Your task to perform on an android device: find which apps use the phone's location Image 0: 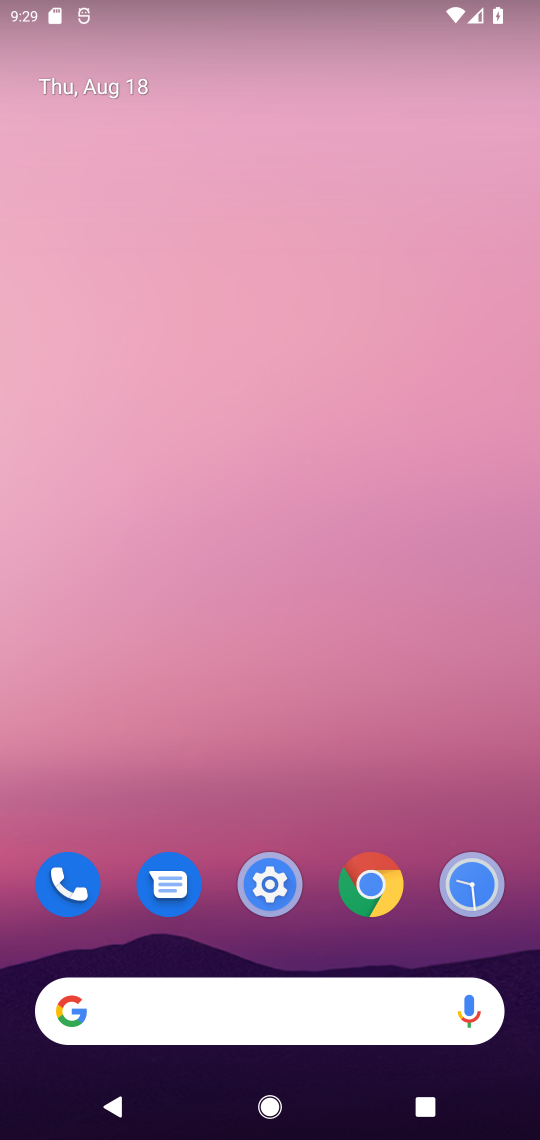
Step 0: click (263, 901)
Your task to perform on an android device: find which apps use the phone's location Image 1: 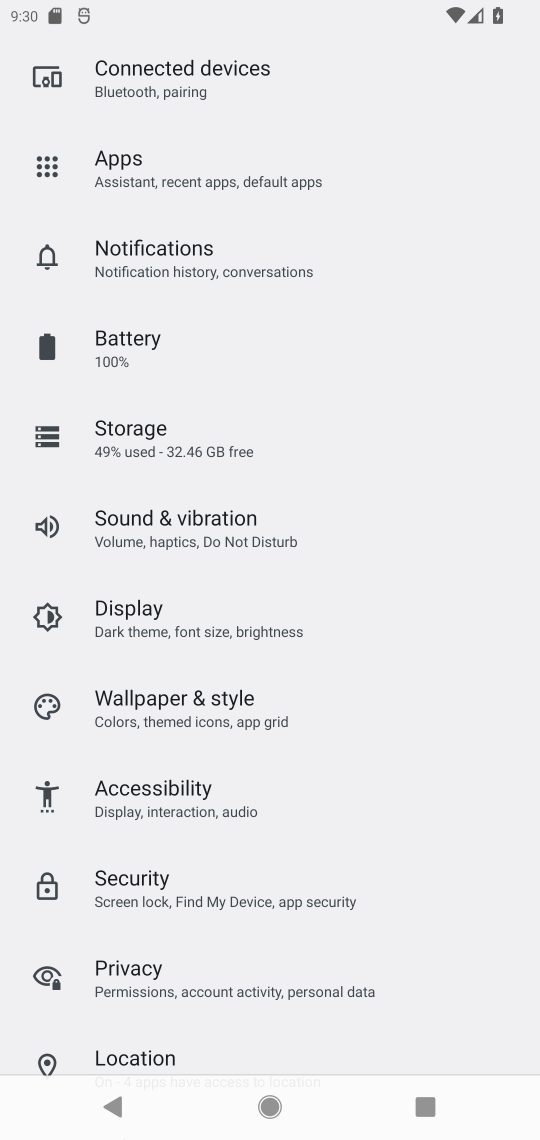
Step 1: click (128, 1066)
Your task to perform on an android device: find which apps use the phone's location Image 2: 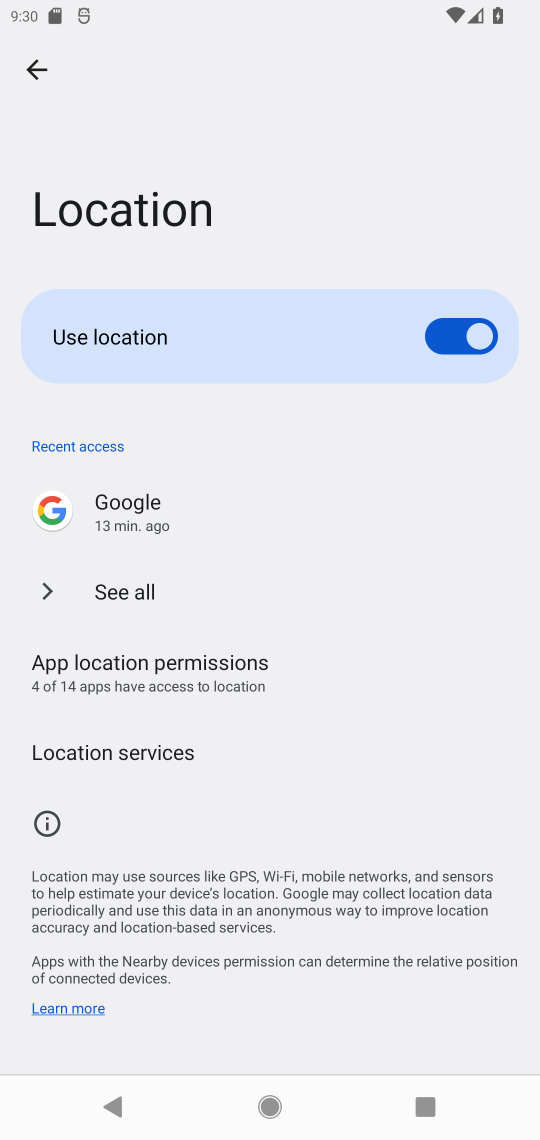
Step 2: click (93, 591)
Your task to perform on an android device: find which apps use the phone's location Image 3: 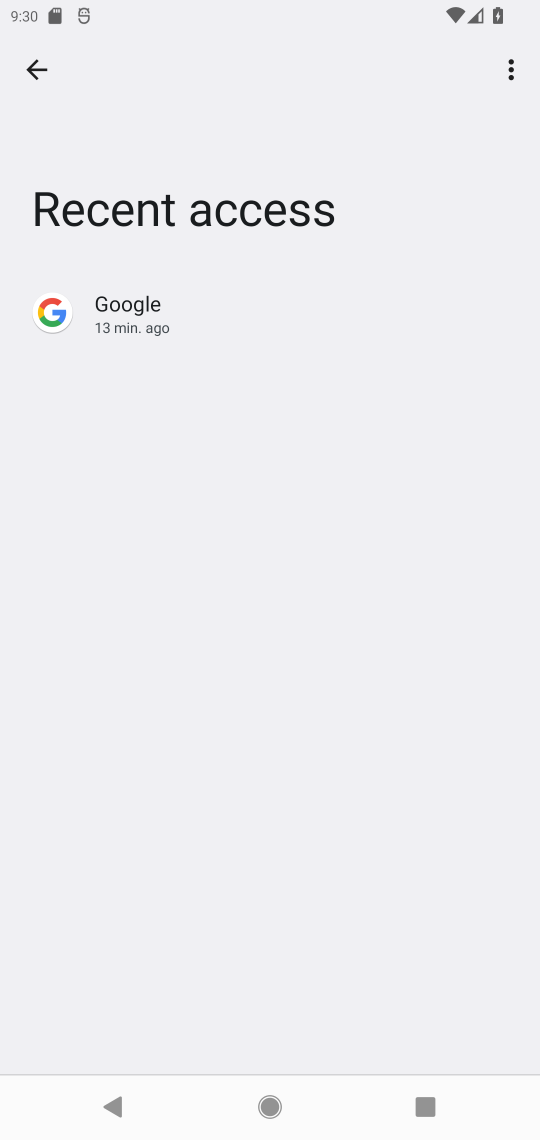
Step 3: task complete